Your task to perform on an android device: Open Chrome and go to the settings page Image 0: 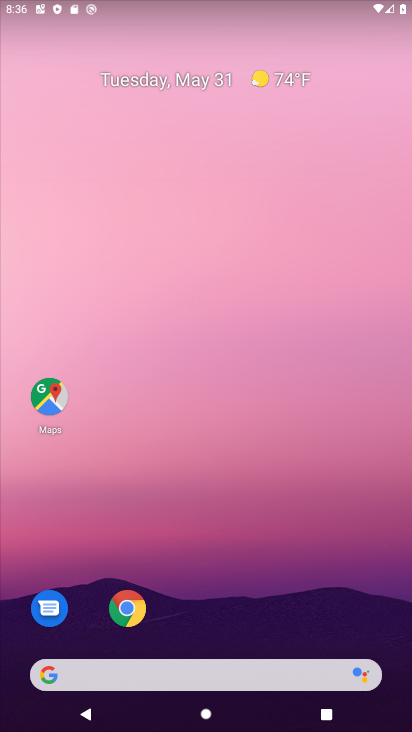
Step 0: click (129, 612)
Your task to perform on an android device: Open Chrome and go to the settings page Image 1: 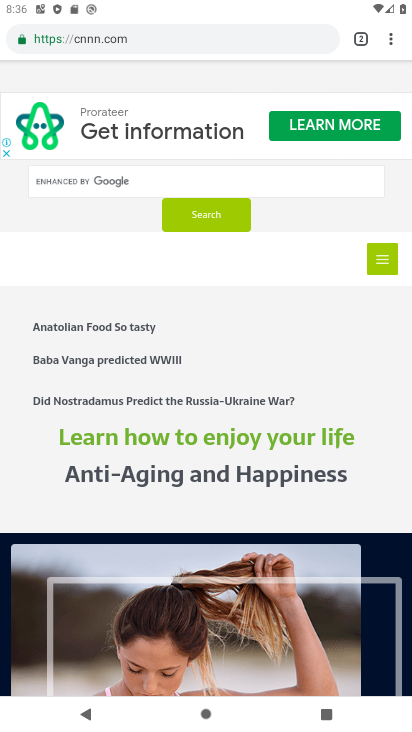
Step 1: click (391, 42)
Your task to perform on an android device: Open Chrome and go to the settings page Image 2: 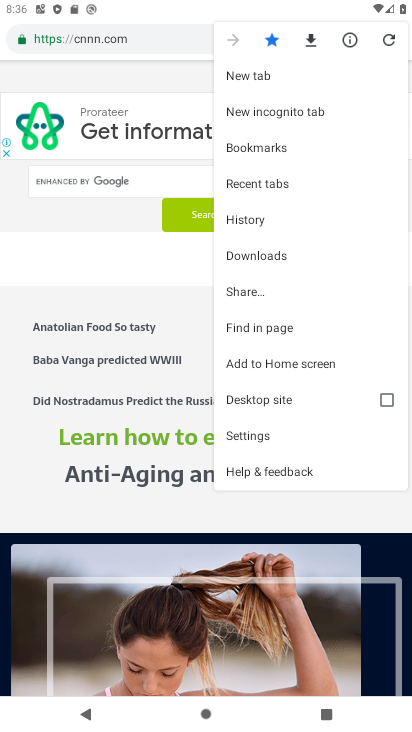
Step 2: click (249, 429)
Your task to perform on an android device: Open Chrome and go to the settings page Image 3: 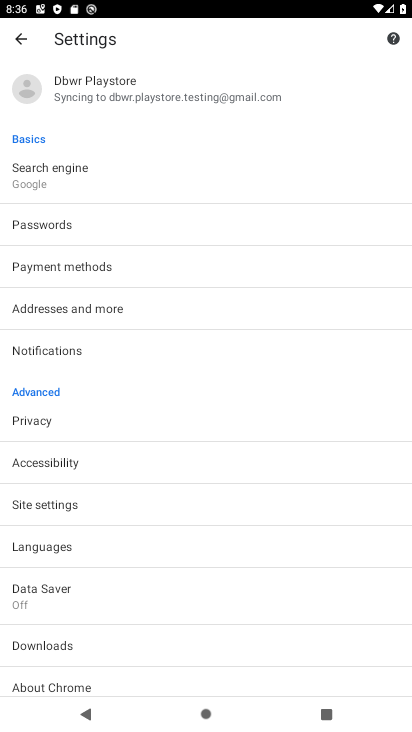
Step 3: task complete